Your task to perform on an android device: Add "macbook air" to the cart on bestbuy.com, then select checkout. Image 0: 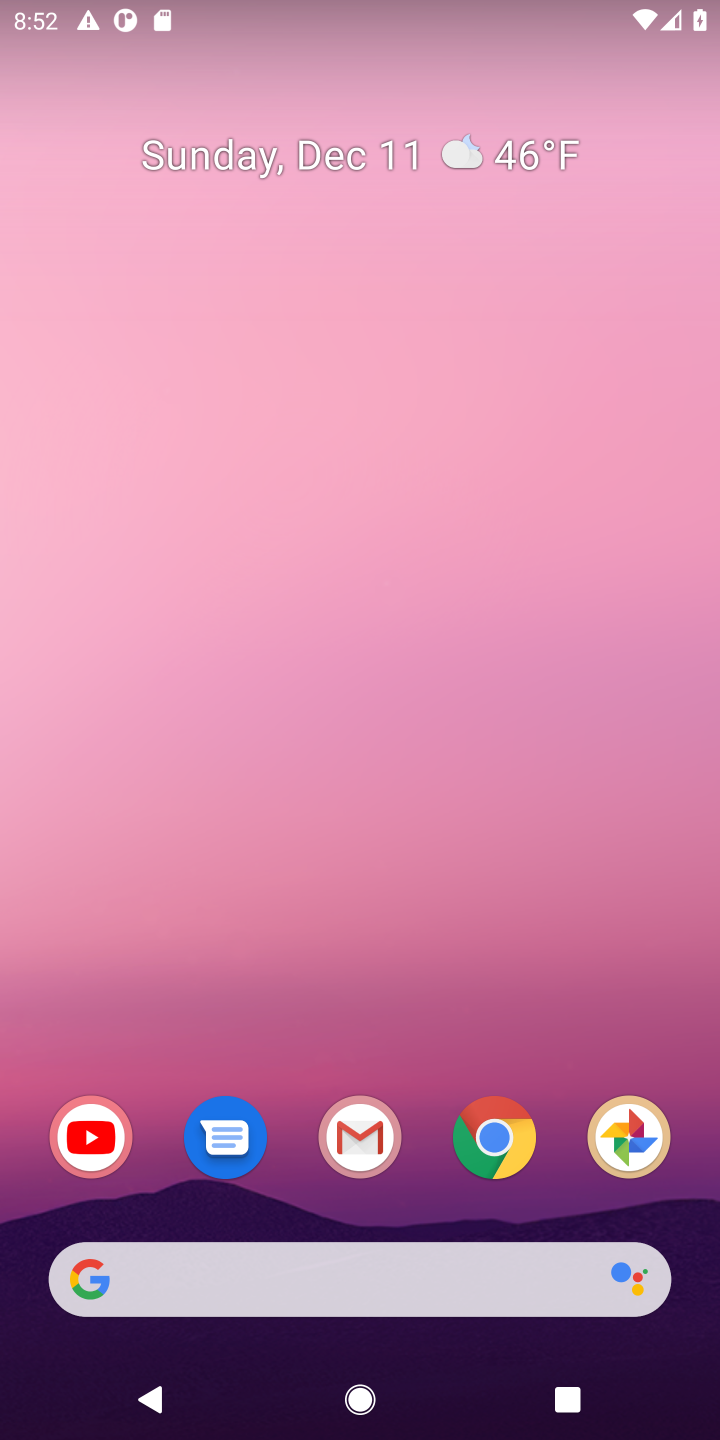
Step 0: press home button
Your task to perform on an android device: Add "macbook air" to the cart on bestbuy.com, then select checkout. Image 1: 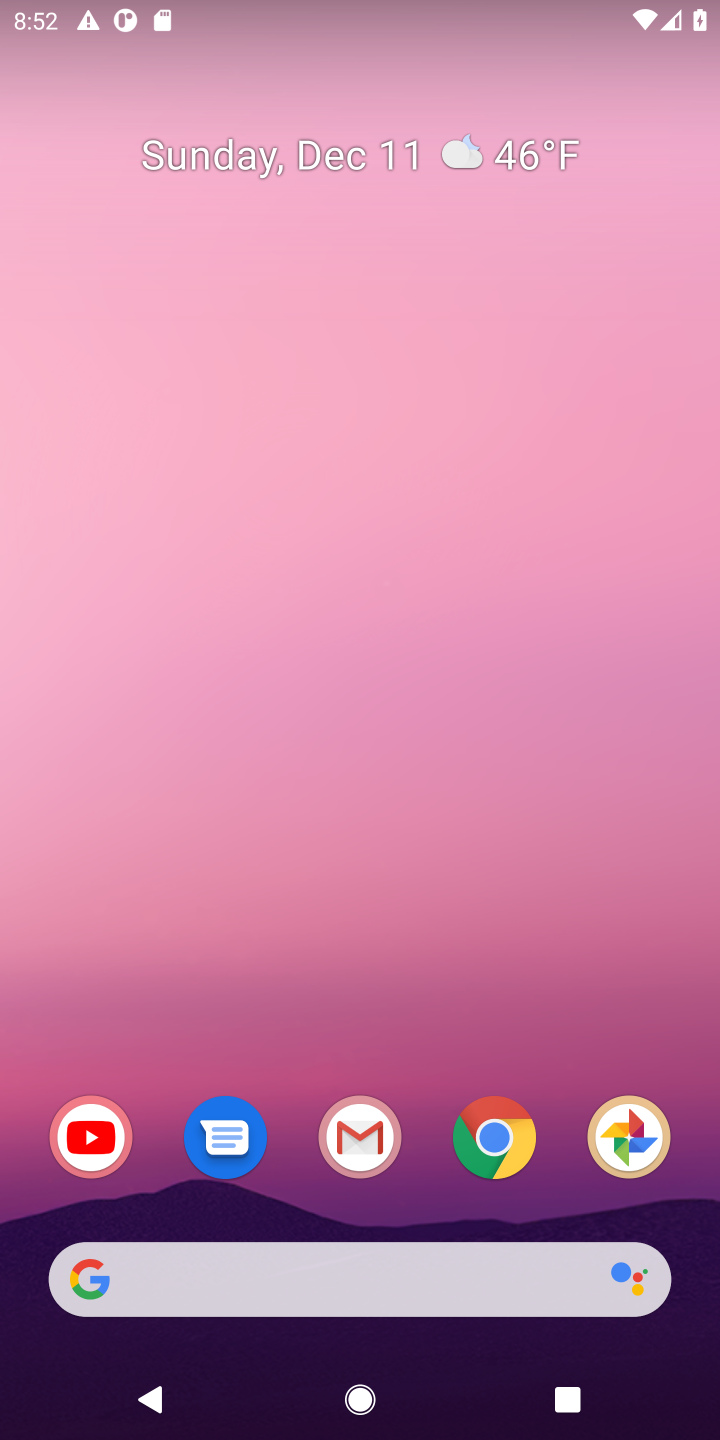
Step 1: click (526, 1129)
Your task to perform on an android device: Add "macbook air" to the cart on bestbuy.com, then select checkout. Image 2: 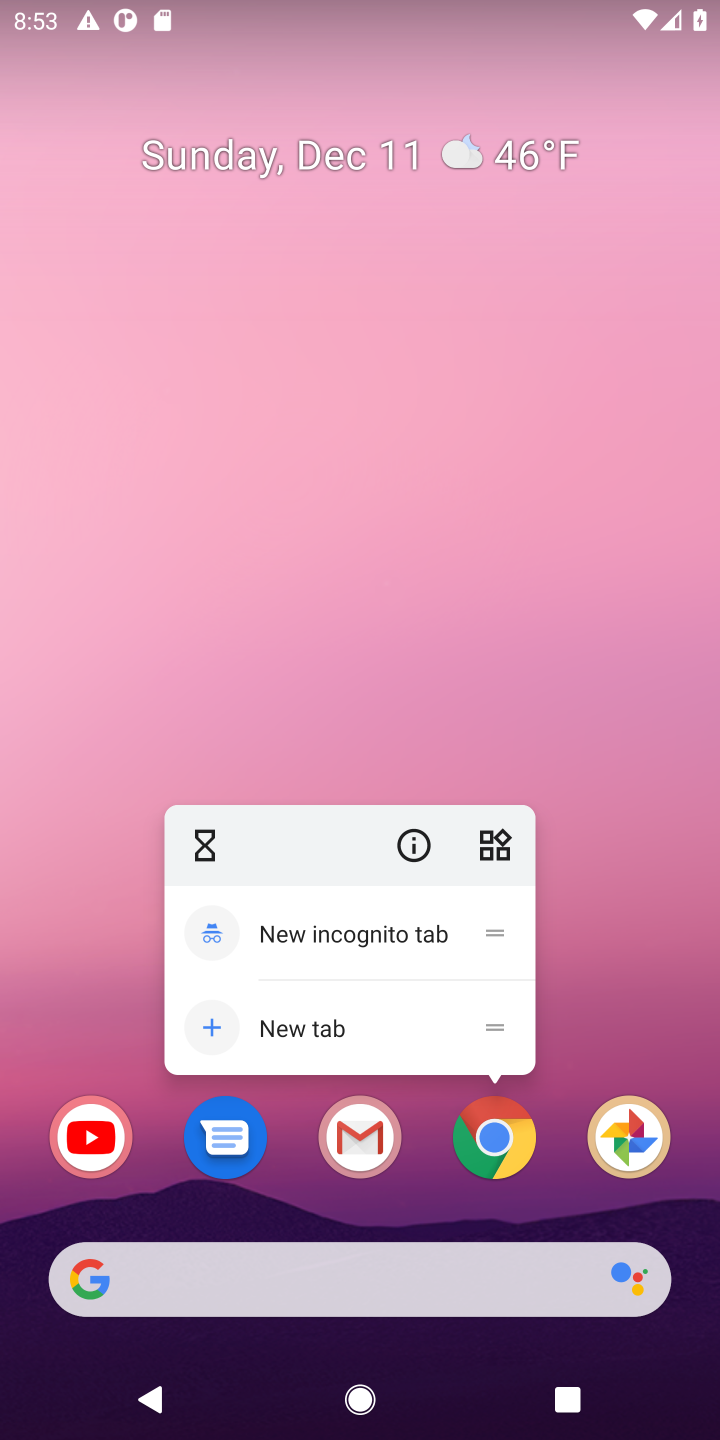
Step 2: click (500, 1142)
Your task to perform on an android device: Add "macbook air" to the cart on bestbuy.com, then select checkout. Image 3: 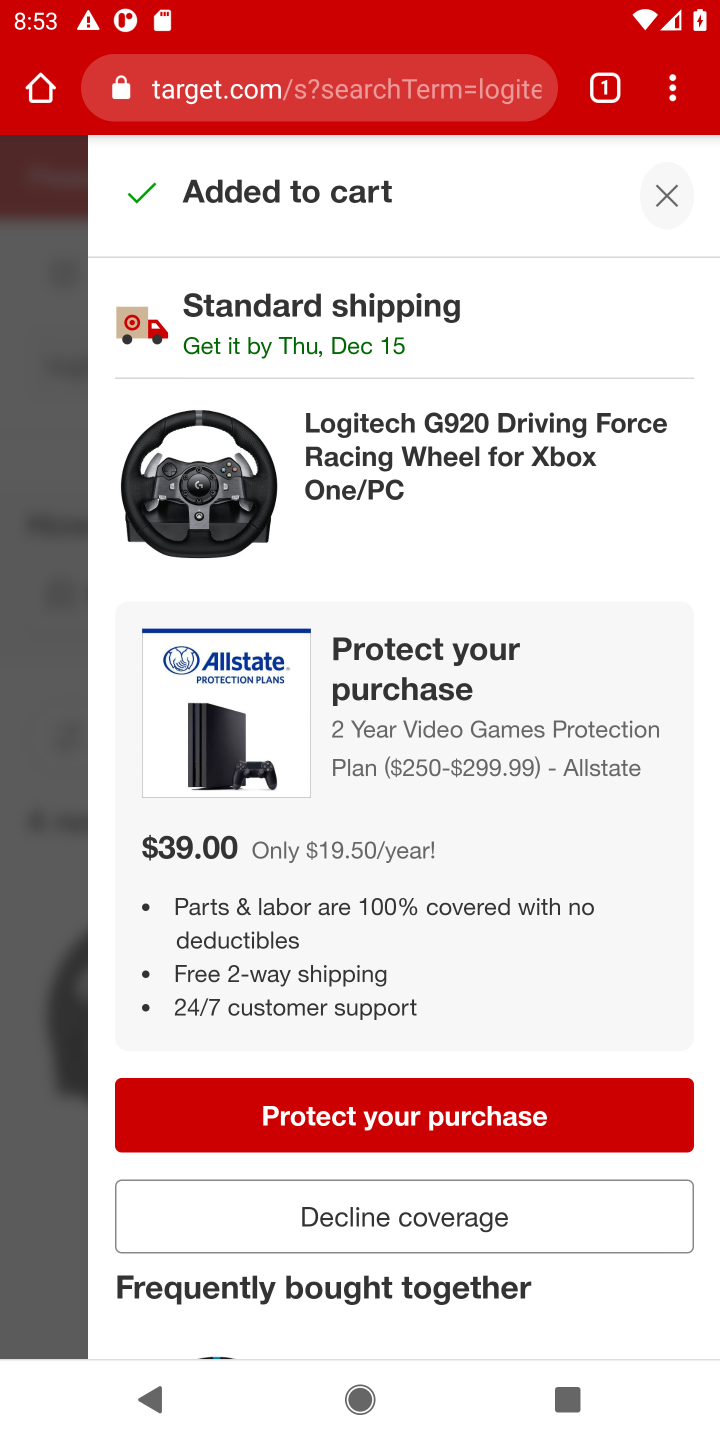
Step 3: click (453, 1217)
Your task to perform on an android device: Add "macbook air" to the cart on bestbuy.com, then select checkout. Image 4: 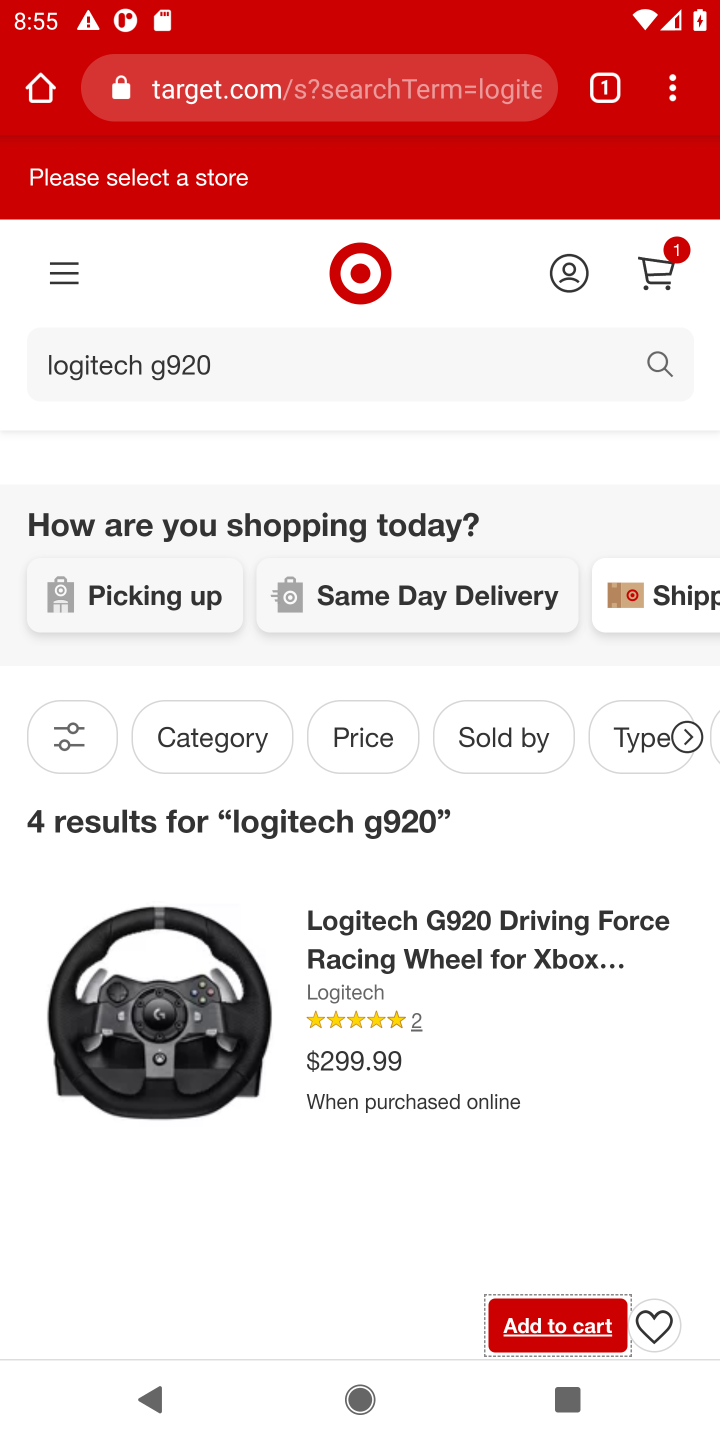
Step 4: task complete